Your task to perform on an android device: Do I have any events tomorrow? Image 0: 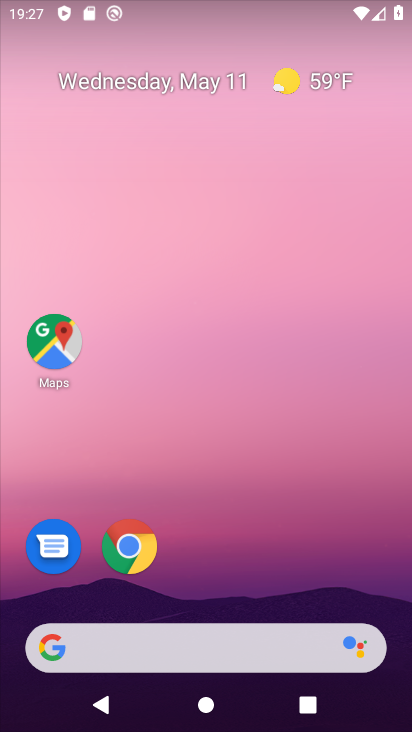
Step 0: drag from (332, 539) to (324, 258)
Your task to perform on an android device: Do I have any events tomorrow? Image 1: 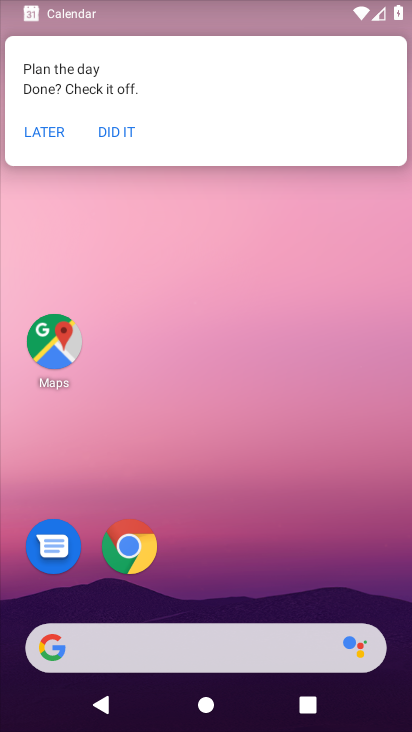
Step 1: drag from (367, 587) to (347, 205)
Your task to perform on an android device: Do I have any events tomorrow? Image 2: 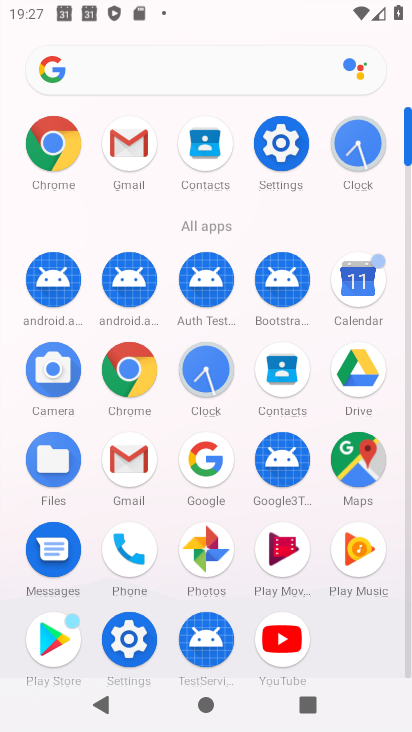
Step 2: click (346, 302)
Your task to perform on an android device: Do I have any events tomorrow? Image 3: 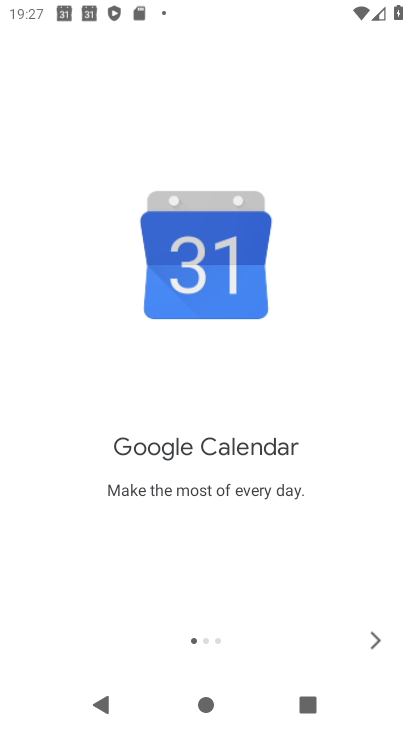
Step 3: click (379, 643)
Your task to perform on an android device: Do I have any events tomorrow? Image 4: 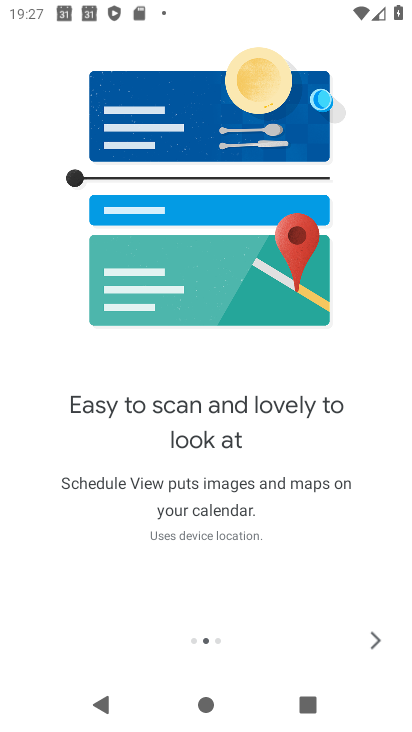
Step 4: click (379, 643)
Your task to perform on an android device: Do I have any events tomorrow? Image 5: 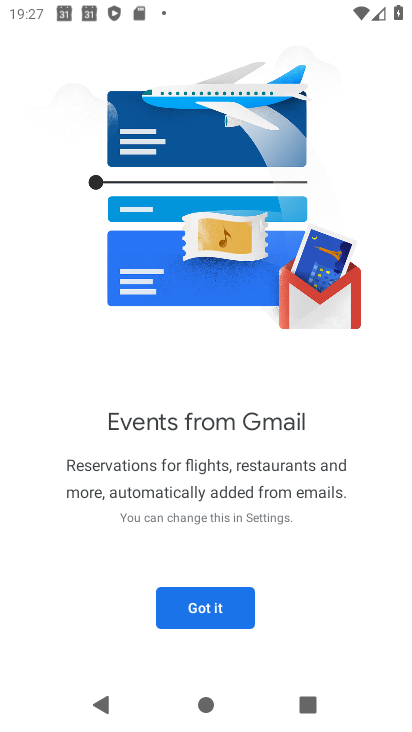
Step 5: click (244, 610)
Your task to perform on an android device: Do I have any events tomorrow? Image 6: 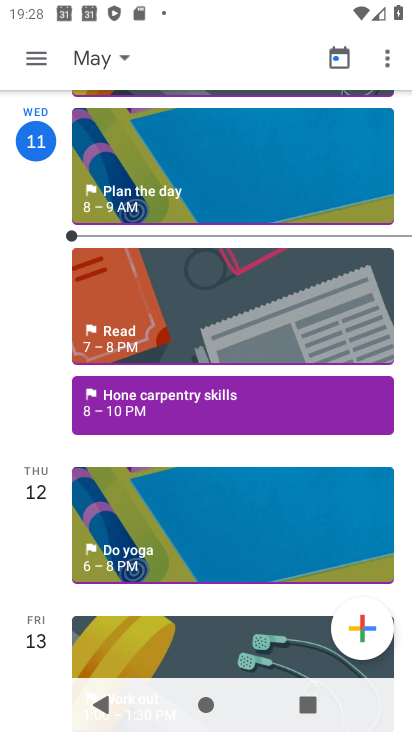
Step 6: click (108, 57)
Your task to perform on an android device: Do I have any events tomorrow? Image 7: 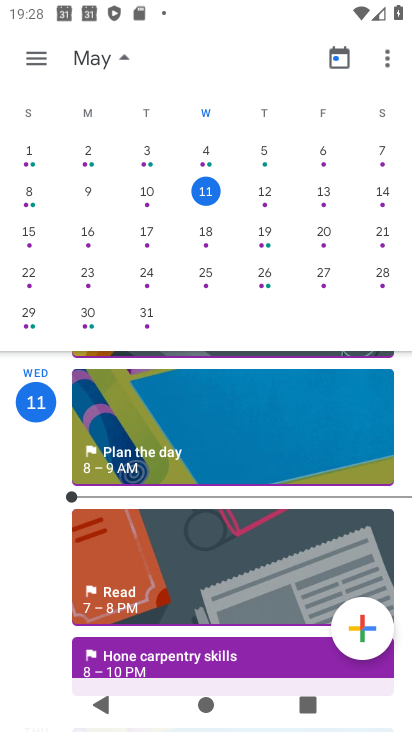
Step 7: click (264, 189)
Your task to perform on an android device: Do I have any events tomorrow? Image 8: 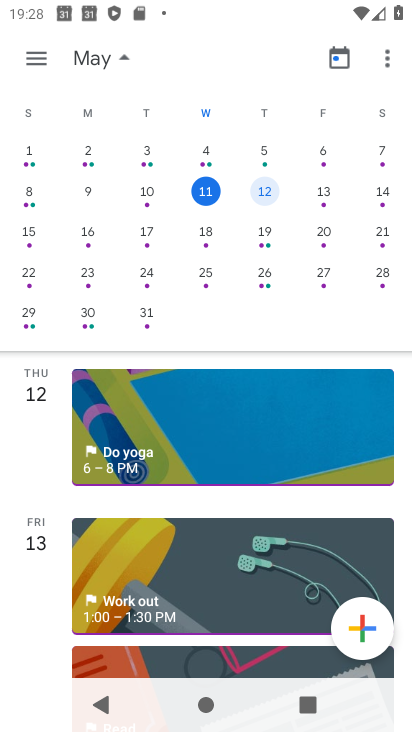
Step 8: task complete